Your task to perform on an android device: allow cookies in the chrome app Image 0: 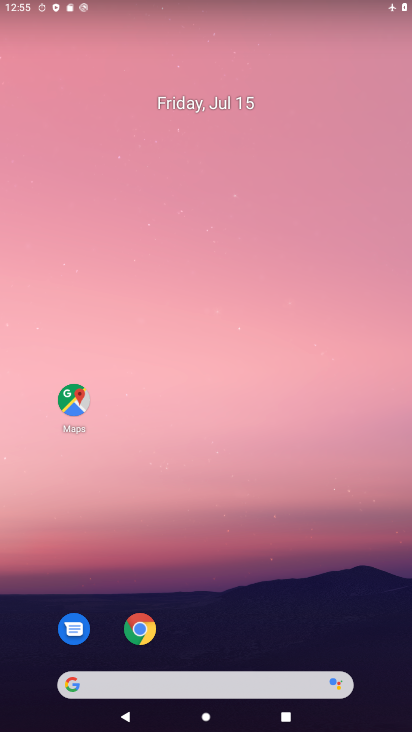
Step 0: click (148, 636)
Your task to perform on an android device: allow cookies in the chrome app Image 1: 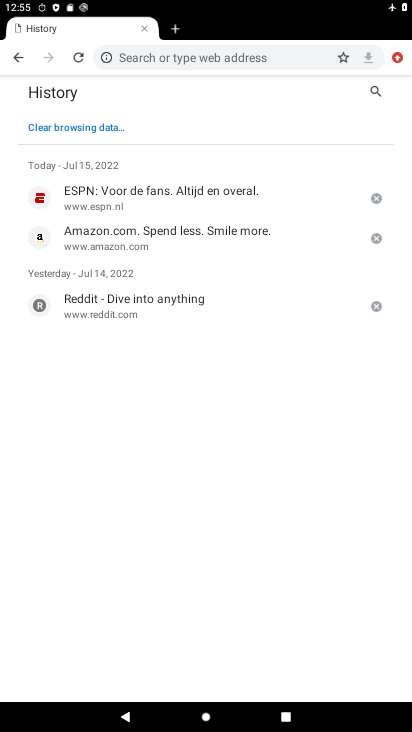
Step 1: click (398, 60)
Your task to perform on an android device: allow cookies in the chrome app Image 2: 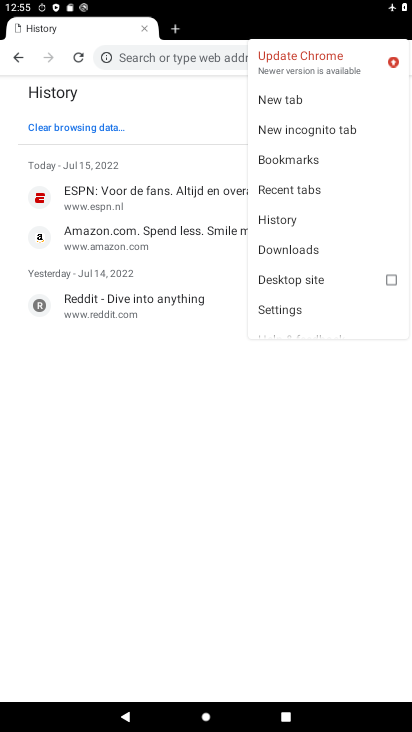
Step 2: click (299, 308)
Your task to perform on an android device: allow cookies in the chrome app Image 3: 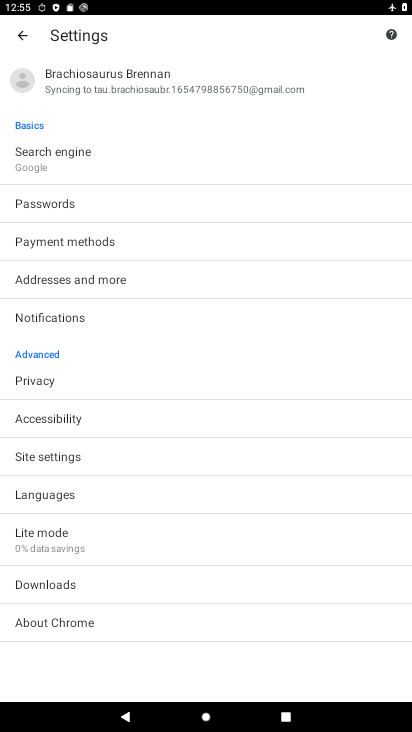
Step 3: click (40, 457)
Your task to perform on an android device: allow cookies in the chrome app Image 4: 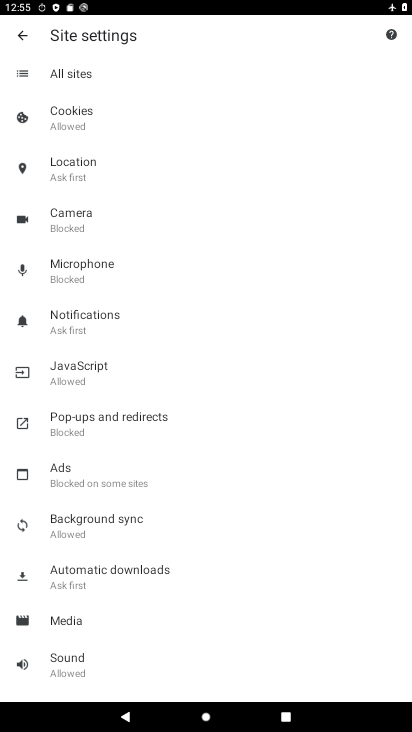
Step 4: click (81, 119)
Your task to perform on an android device: allow cookies in the chrome app Image 5: 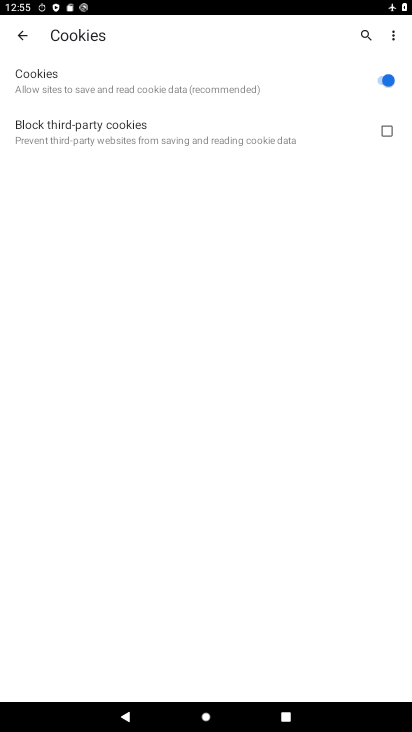
Step 5: task complete